Your task to perform on an android device: turn on bluetooth scan Image 0: 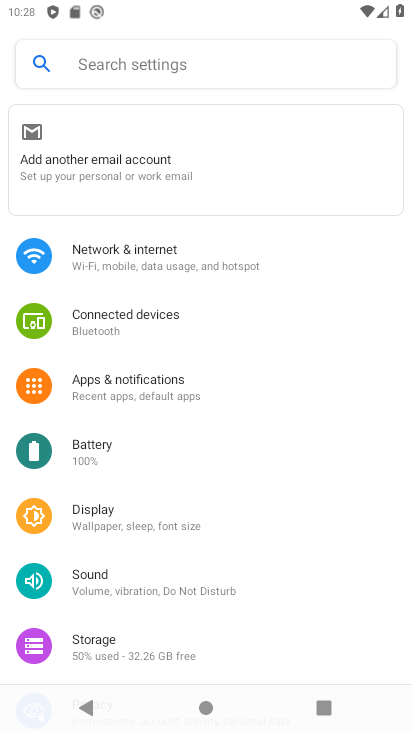
Step 0: drag from (369, 643) to (369, 262)
Your task to perform on an android device: turn on bluetooth scan Image 1: 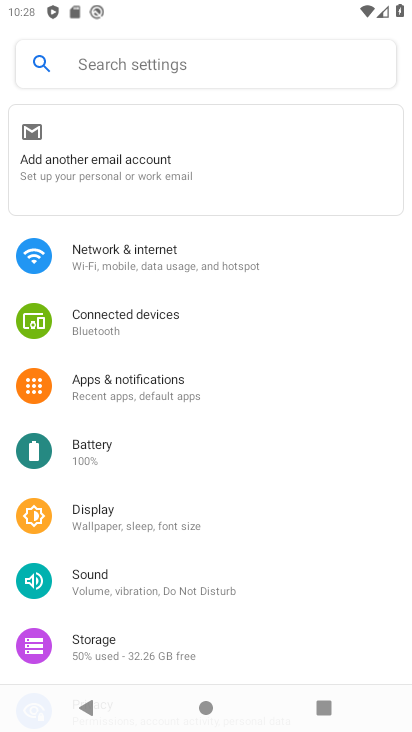
Step 1: drag from (301, 618) to (304, 323)
Your task to perform on an android device: turn on bluetooth scan Image 2: 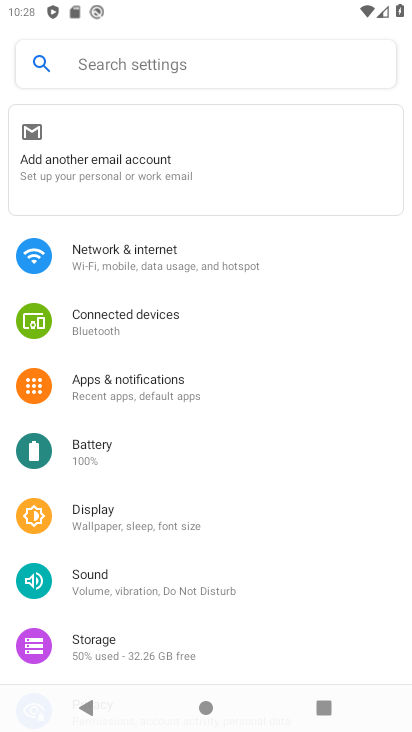
Step 2: click (318, 318)
Your task to perform on an android device: turn on bluetooth scan Image 3: 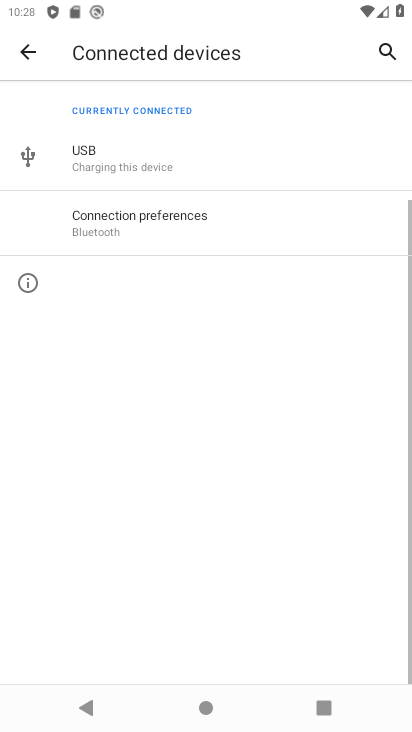
Step 3: drag from (355, 611) to (350, 356)
Your task to perform on an android device: turn on bluetooth scan Image 4: 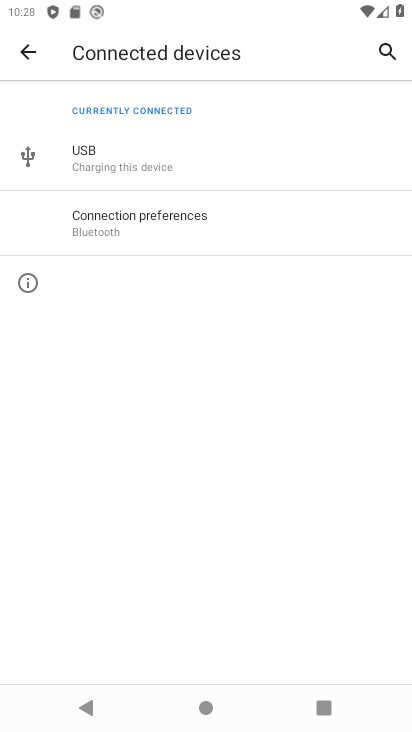
Step 4: click (22, 47)
Your task to perform on an android device: turn on bluetooth scan Image 5: 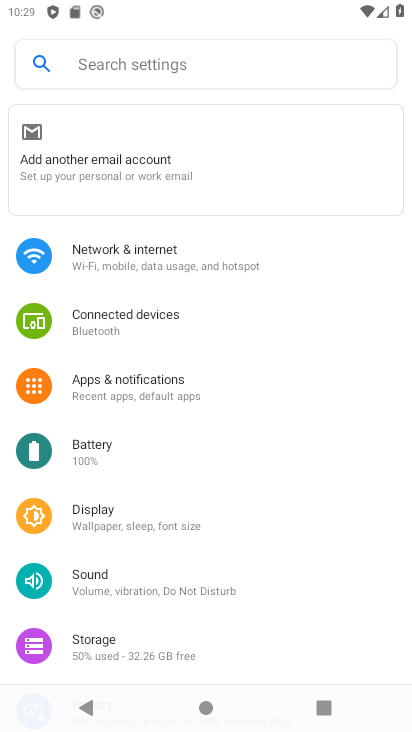
Step 5: click (341, 296)
Your task to perform on an android device: turn on bluetooth scan Image 6: 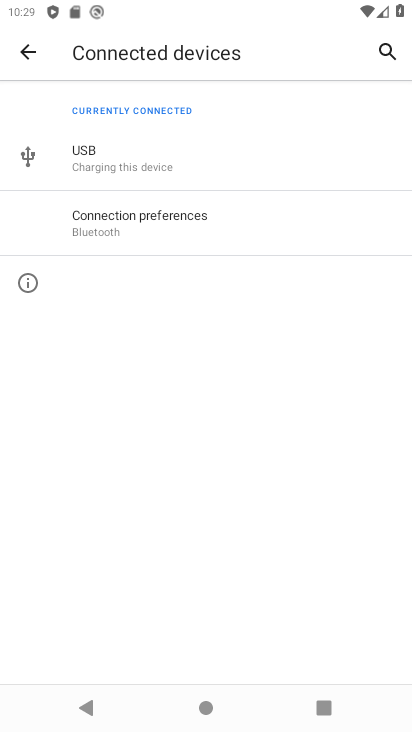
Step 6: click (23, 50)
Your task to perform on an android device: turn on bluetooth scan Image 7: 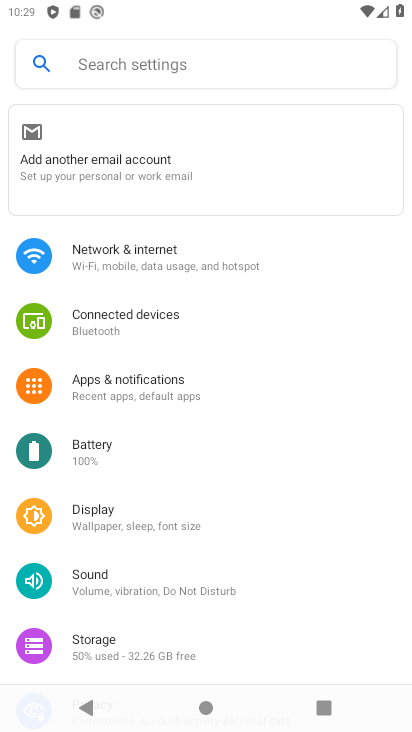
Step 7: drag from (333, 428) to (323, 192)
Your task to perform on an android device: turn on bluetooth scan Image 8: 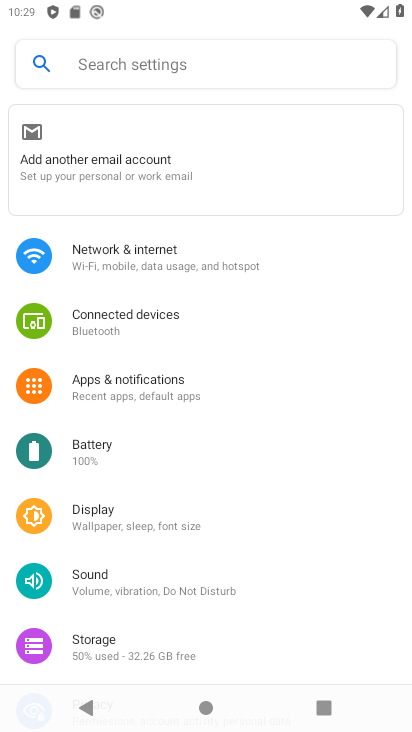
Step 8: drag from (321, 586) to (332, 277)
Your task to perform on an android device: turn on bluetooth scan Image 9: 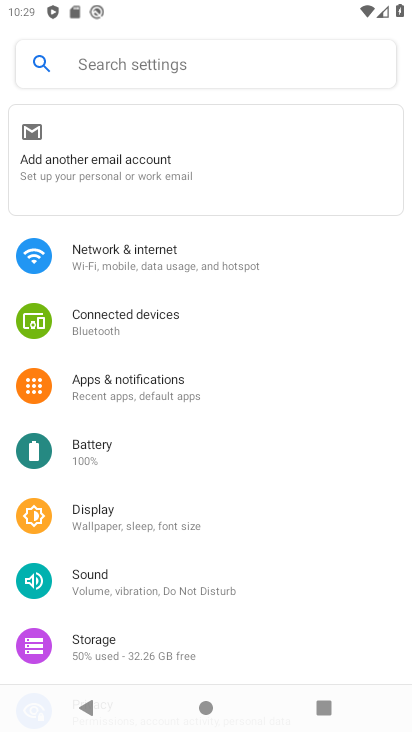
Step 9: drag from (330, 579) to (326, 240)
Your task to perform on an android device: turn on bluetooth scan Image 10: 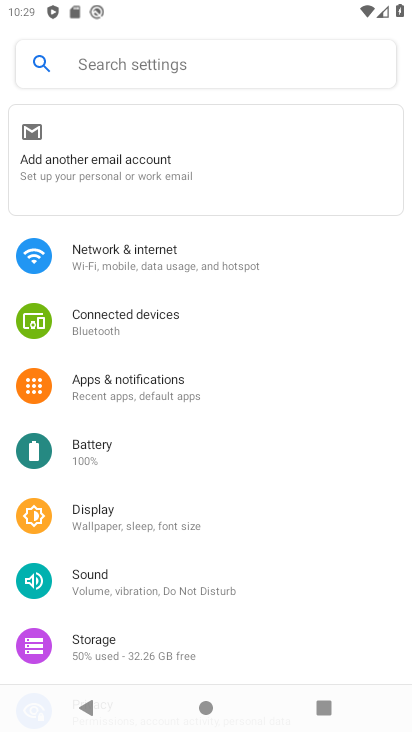
Step 10: drag from (352, 431) to (314, 203)
Your task to perform on an android device: turn on bluetooth scan Image 11: 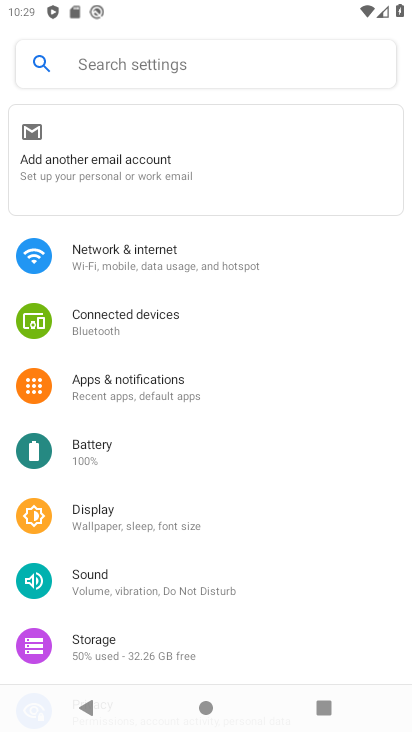
Step 11: drag from (357, 616) to (324, 267)
Your task to perform on an android device: turn on bluetooth scan Image 12: 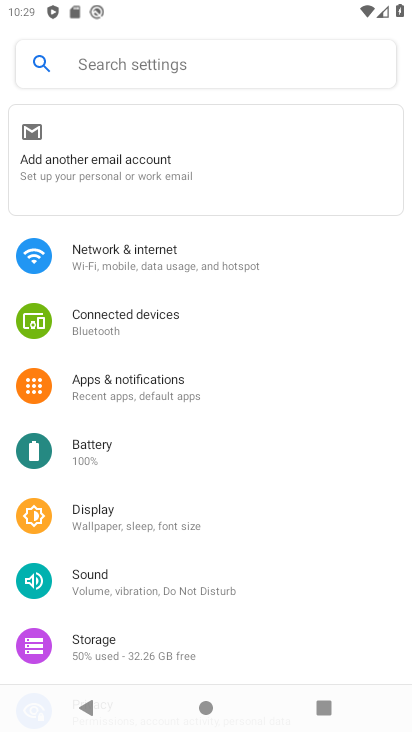
Step 12: drag from (332, 460) to (323, 228)
Your task to perform on an android device: turn on bluetooth scan Image 13: 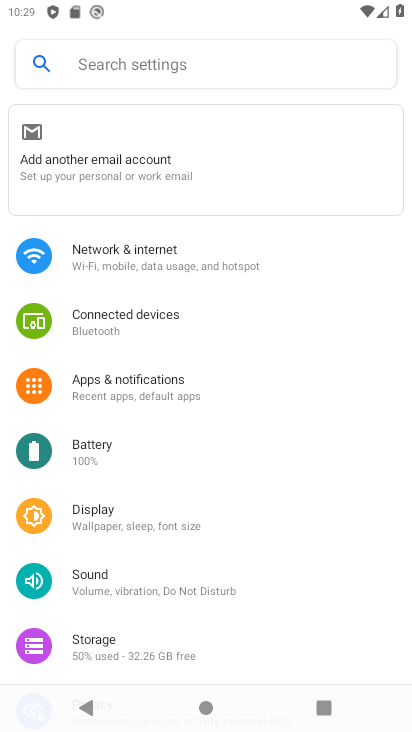
Step 13: click (316, 375)
Your task to perform on an android device: turn on bluetooth scan Image 14: 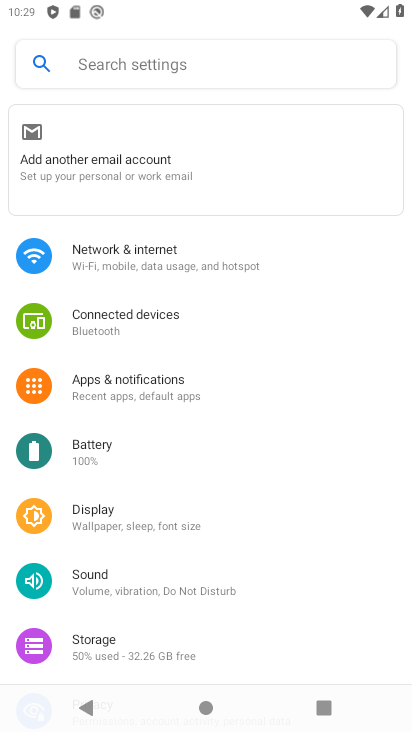
Step 14: click (355, 148)
Your task to perform on an android device: turn on bluetooth scan Image 15: 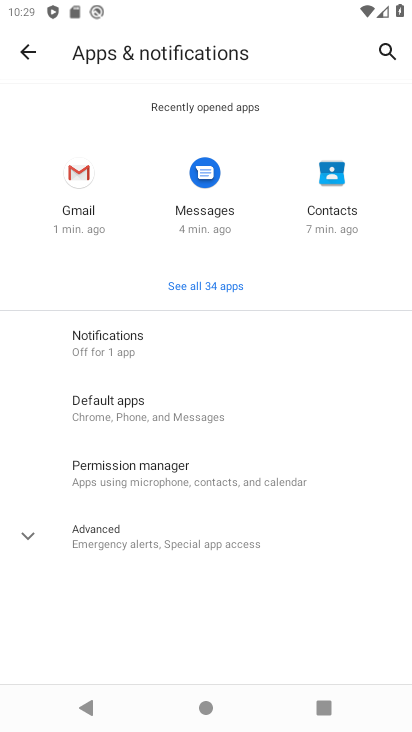
Step 15: click (20, 54)
Your task to perform on an android device: turn on bluetooth scan Image 16: 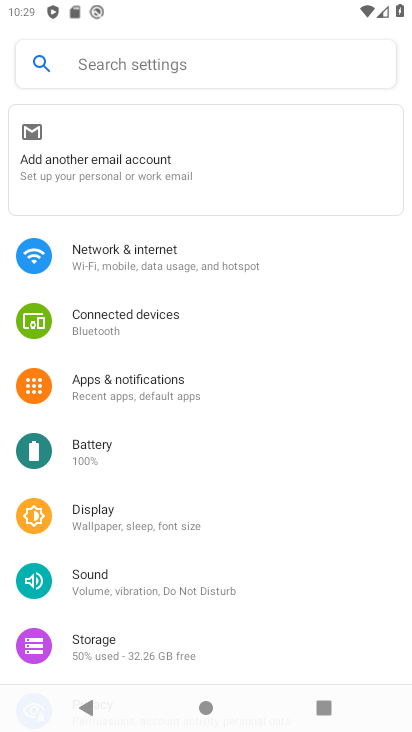
Step 16: drag from (329, 447) to (301, 271)
Your task to perform on an android device: turn on bluetooth scan Image 17: 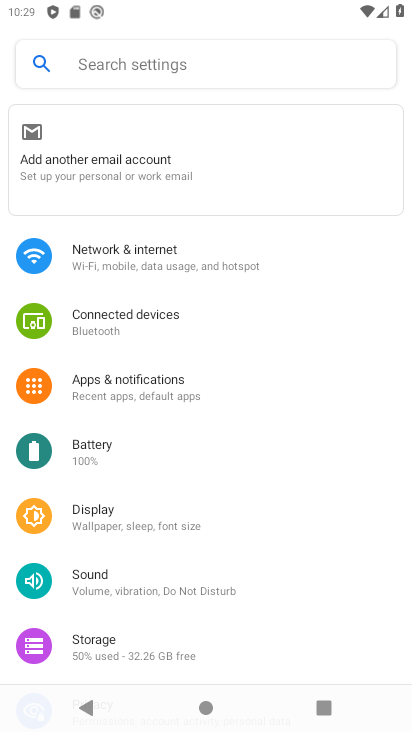
Step 17: drag from (352, 643) to (331, 173)
Your task to perform on an android device: turn on bluetooth scan Image 18: 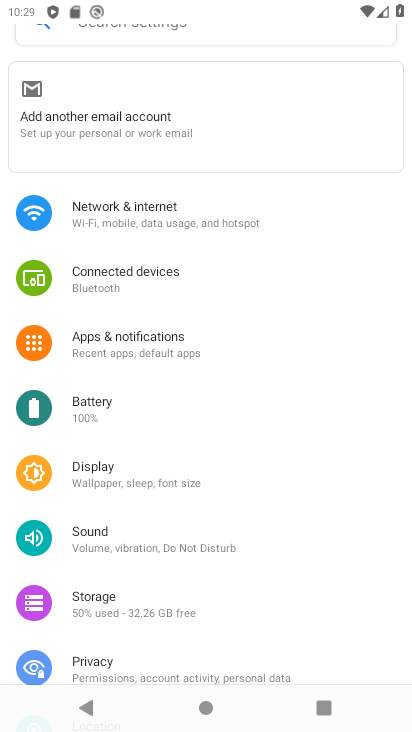
Step 18: drag from (319, 577) to (336, 255)
Your task to perform on an android device: turn on bluetooth scan Image 19: 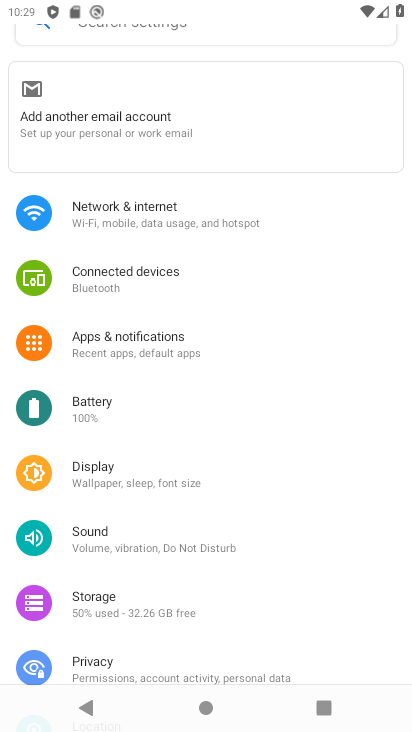
Step 19: drag from (357, 589) to (327, 288)
Your task to perform on an android device: turn on bluetooth scan Image 20: 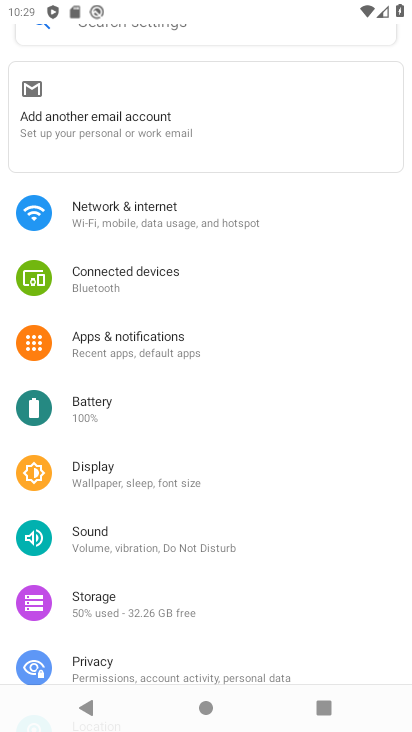
Step 20: drag from (368, 640) to (320, 200)
Your task to perform on an android device: turn on bluetooth scan Image 21: 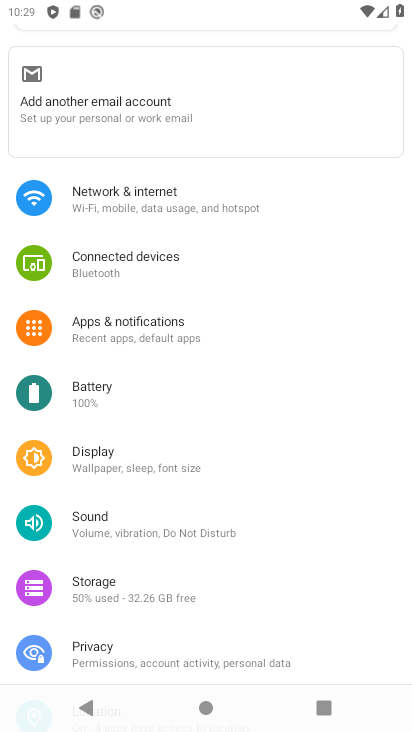
Step 21: drag from (378, 668) to (343, 231)
Your task to perform on an android device: turn on bluetooth scan Image 22: 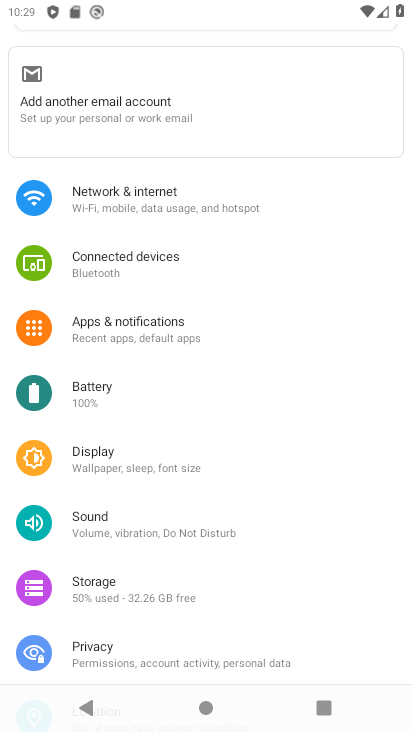
Step 22: drag from (354, 387) to (351, 267)
Your task to perform on an android device: turn on bluetooth scan Image 23: 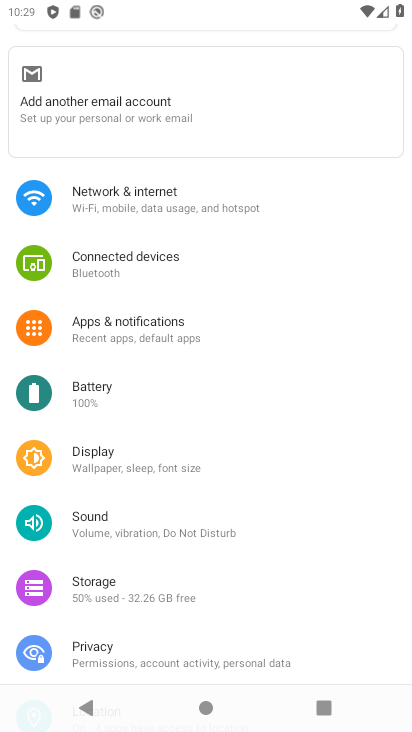
Step 23: drag from (349, 227) to (349, 189)
Your task to perform on an android device: turn on bluetooth scan Image 24: 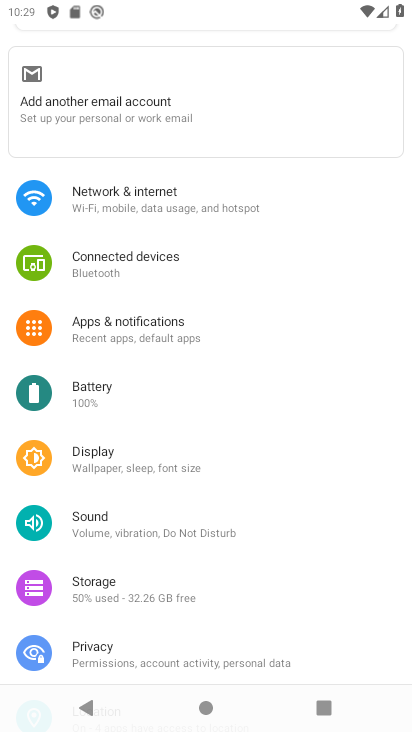
Step 24: drag from (349, 611) to (321, 143)
Your task to perform on an android device: turn on bluetooth scan Image 25: 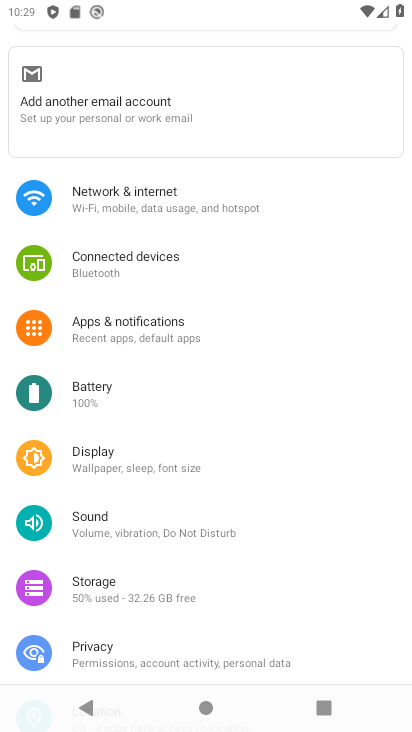
Step 25: drag from (291, 432) to (247, 203)
Your task to perform on an android device: turn on bluetooth scan Image 26: 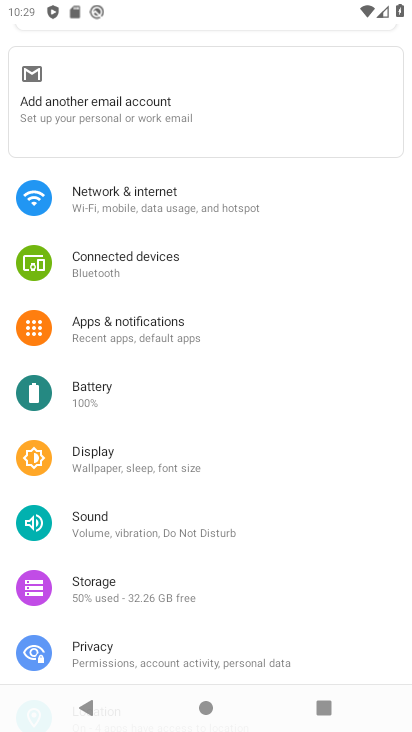
Step 26: drag from (353, 612) to (372, 166)
Your task to perform on an android device: turn on bluetooth scan Image 27: 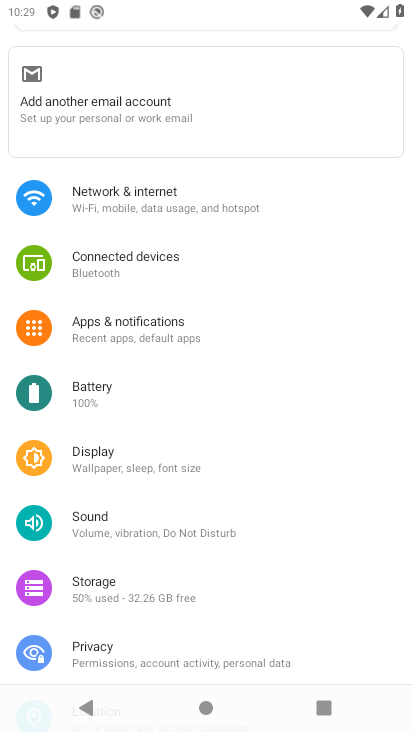
Step 27: click (322, 167)
Your task to perform on an android device: turn on bluetooth scan Image 28: 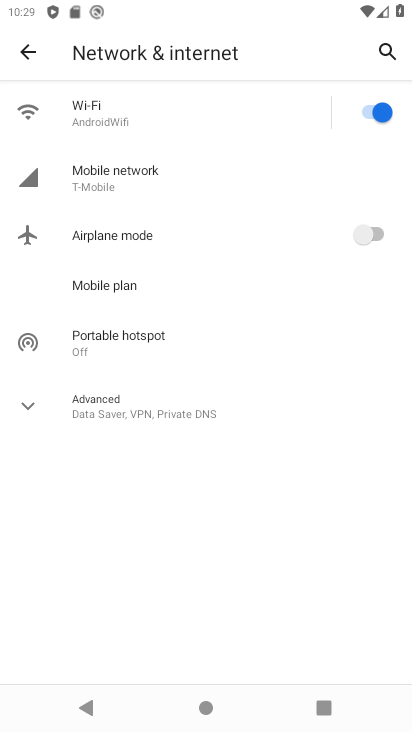
Step 28: drag from (331, 553) to (288, 291)
Your task to perform on an android device: turn on bluetooth scan Image 29: 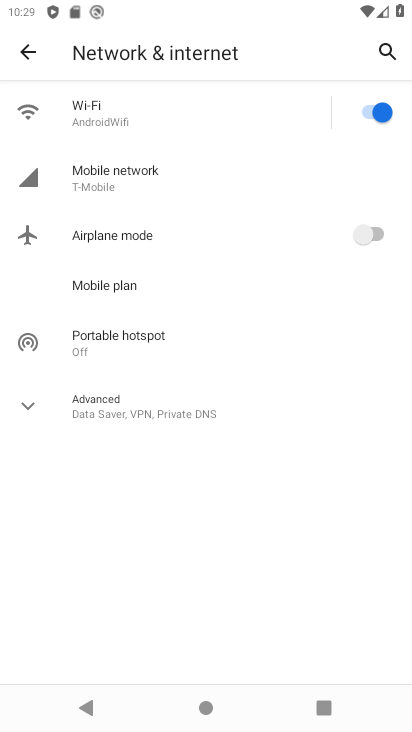
Step 29: click (14, 52)
Your task to perform on an android device: turn on bluetooth scan Image 30: 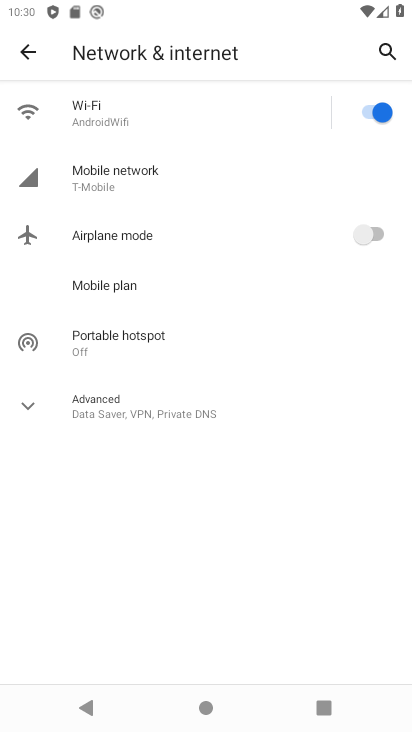
Step 30: click (20, 51)
Your task to perform on an android device: turn on bluetooth scan Image 31: 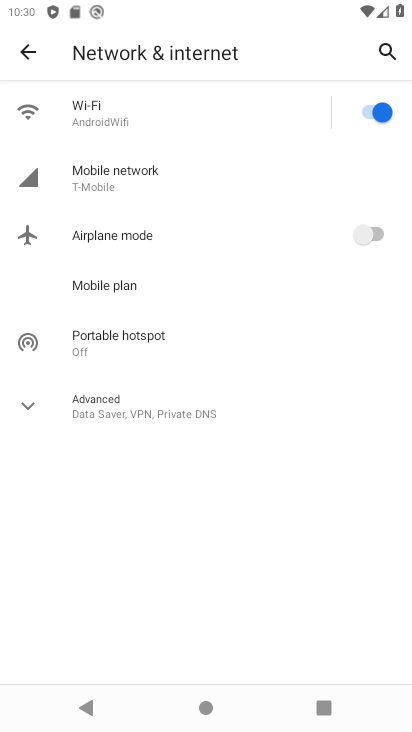
Step 31: click (29, 55)
Your task to perform on an android device: turn on bluetooth scan Image 32: 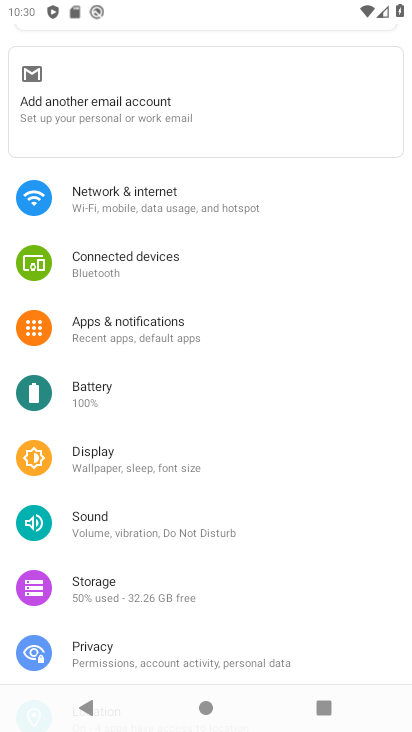
Step 32: drag from (338, 495) to (333, 168)
Your task to perform on an android device: turn on bluetooth scan Image 33: 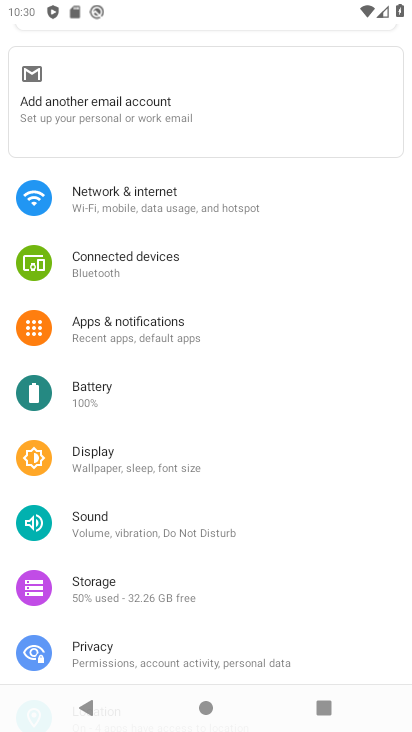
Step 33: drag from (368, 640) to (301, 260)
Your task to perform on an android device: turn on bluetooth scan Image 34: 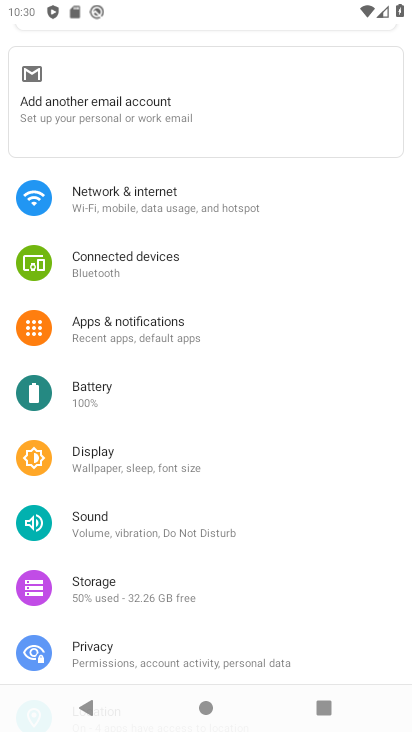
Step 34: drag from (364, 383) to (378, 201)
Your task to perform on an android device: turn on bluetooth scan Image 35: 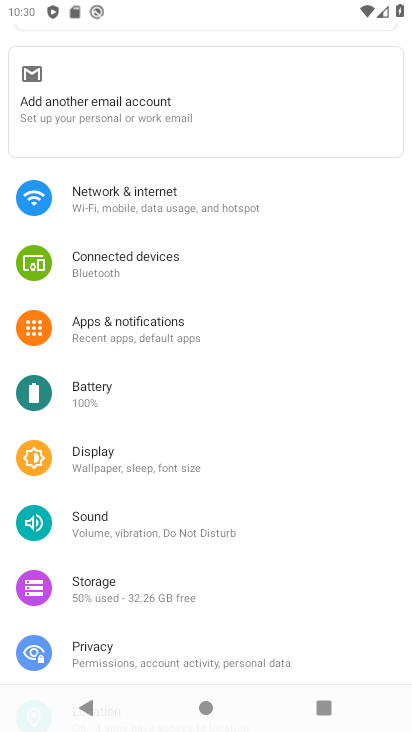
Step 35: drag from (339, 464) to (321, 221)
Your task to perform on an android device: turn on bluetooth scan Image 36: 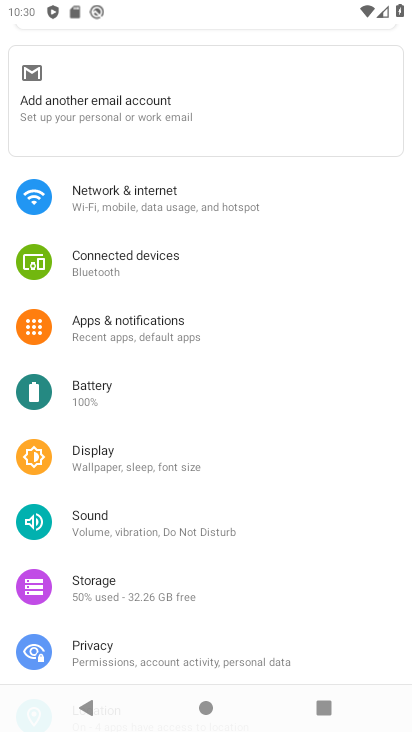
Step 36: drag from (362, 644) to (315, 250)
Your task to perform on an android device: turn on bluetooth scan Image 37: 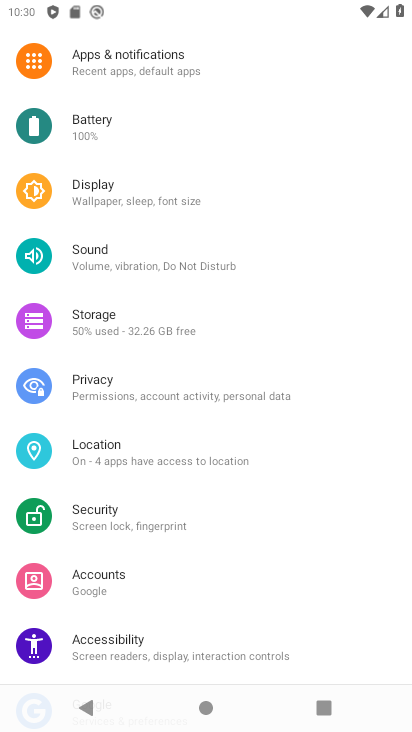
Step 37: click (61, 450)
Your task to perform on an android device: turn on bluetooth scan Image 38: 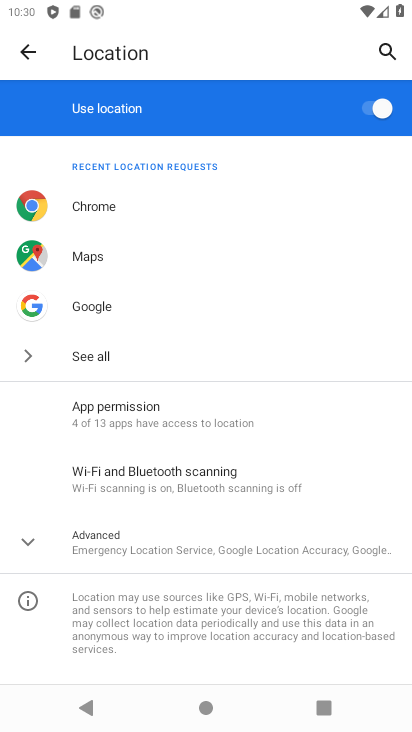
Step 38: click (23, 543)
Your task to perform on an android device: turn on bluetooth scan Image 39: 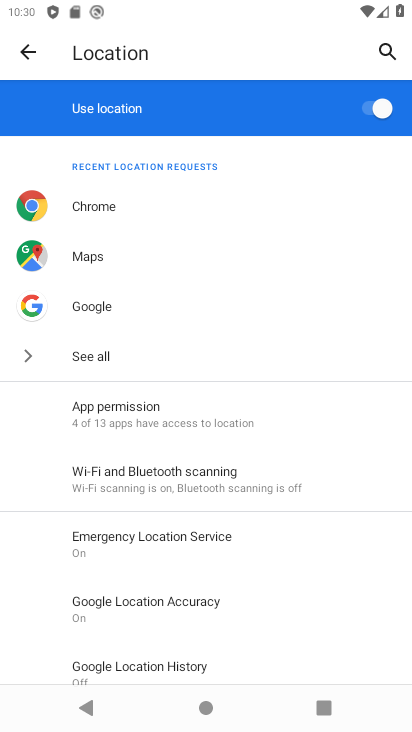
Step 39: drag from (311, 418) to (305, 312)
Your task to perform on an android device: turn on bluetooth scan Image 40: 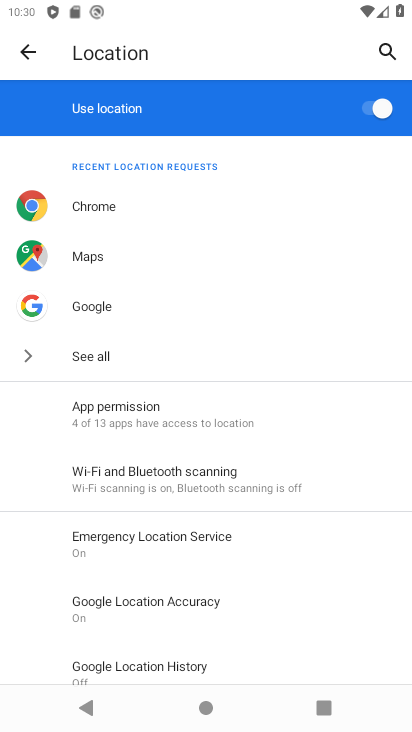
Step 40: drag from (318, 485) to (314, 286)
Your task to perform on an android device: turn on bluetooth scan Image 41: 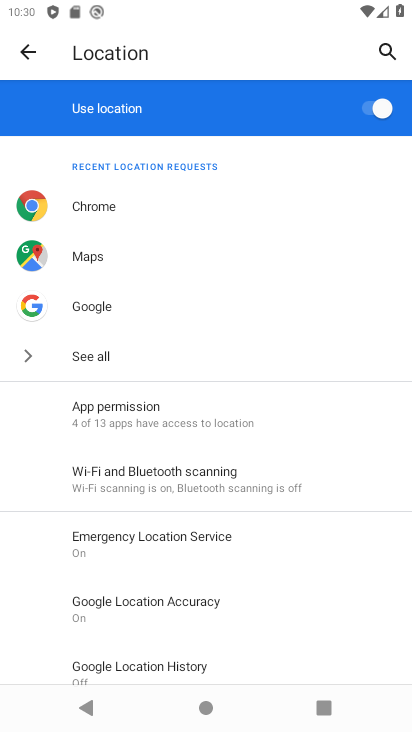
Step 41: drag from (304, 436) to (309, 264)
Your task to perform on an android device: turn on bluetooth scan Image 42: 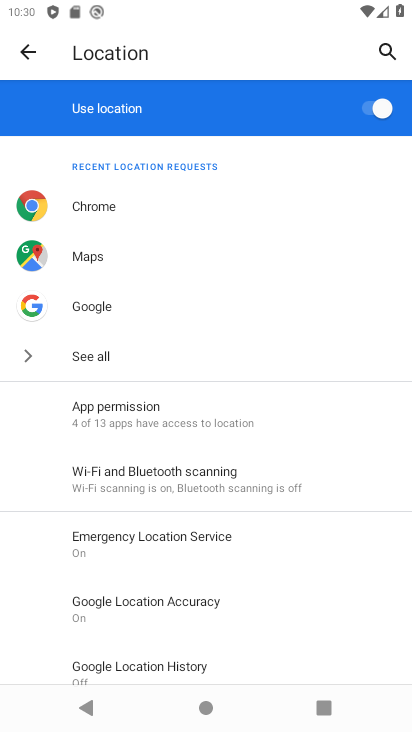
Step 42: drag from (344, 649) to (334, 342)
Your task to perform on an android device: turn on bluetooth scan Image 43: 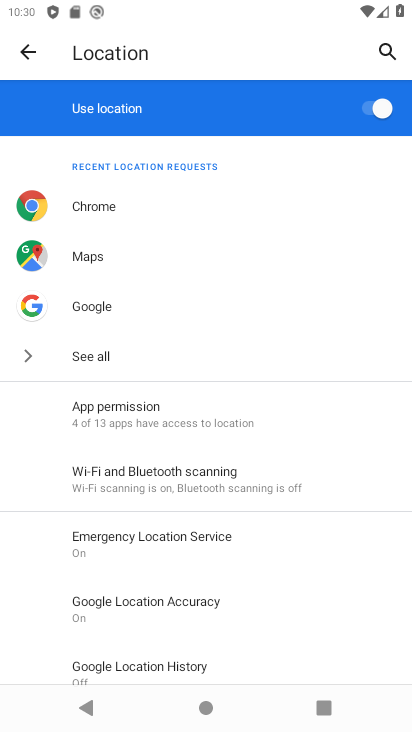
Step 43: drag from (302, 633) to (292, 295)
Your task to perform on an android device: turn on bluetooth scan Image 44: 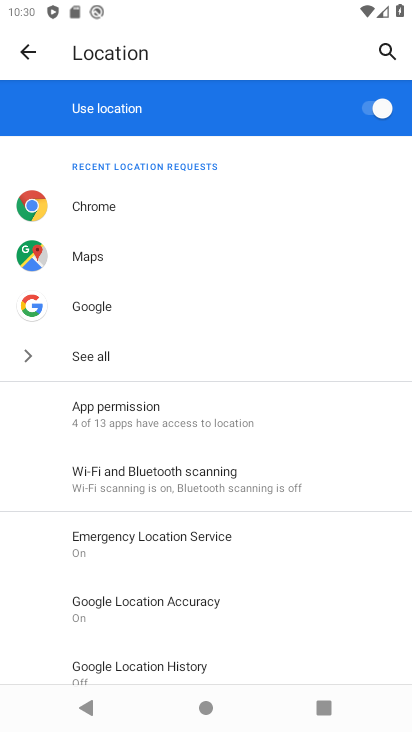
Step 44: drag from (348, 657) to (362, 295)
Your task to perform on an android device: turn on bluetooth scan Image 45: 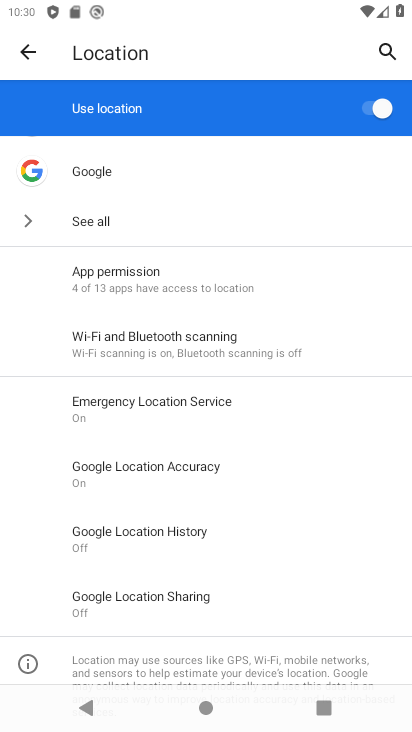
Step 45: click (138, 335)
Your task to perform on an android device: turn on bluetooth scan Image 46: 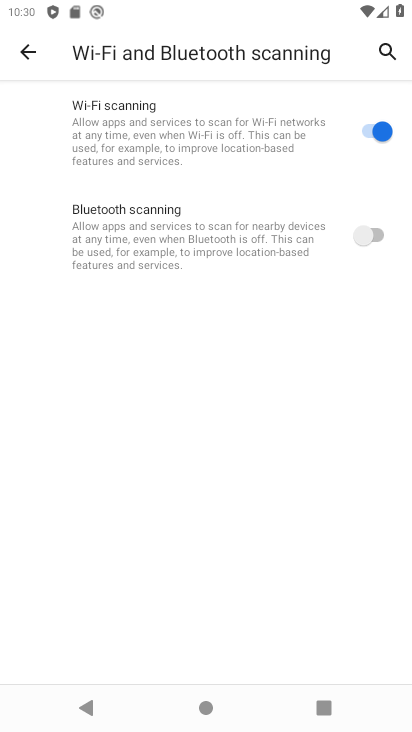
Step 46: click (381, 229)
Your task to perform on an android device: turn on bluetooth scan Image 47: 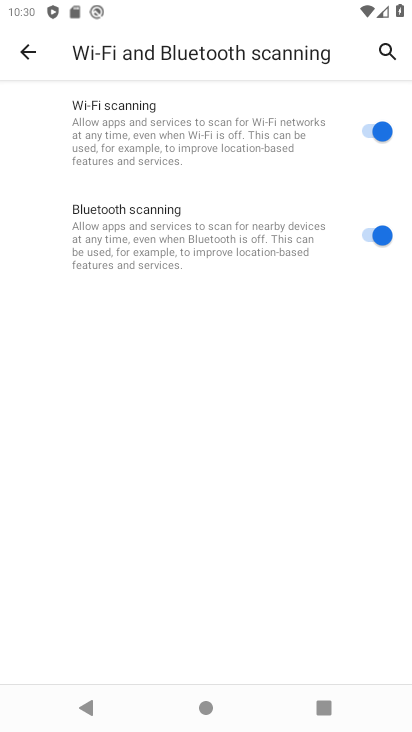
Step 47: task complete